Your task to perform on an android device: allow cookies in the chrome app Image 0: 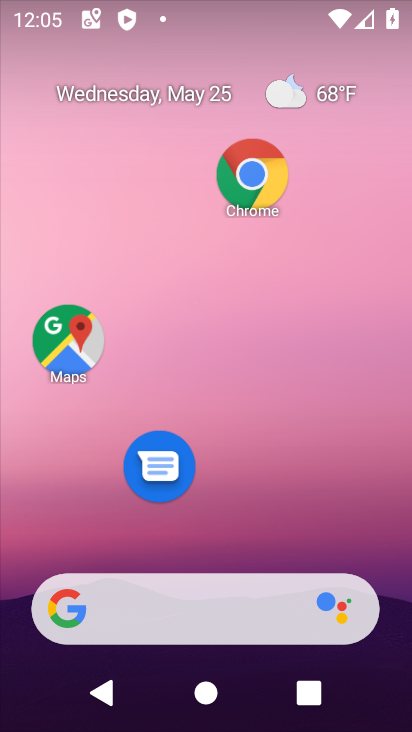
Step 0: click (345, 264)
Your task to perform on an android device: allow cookies in the chrome app Image 1: 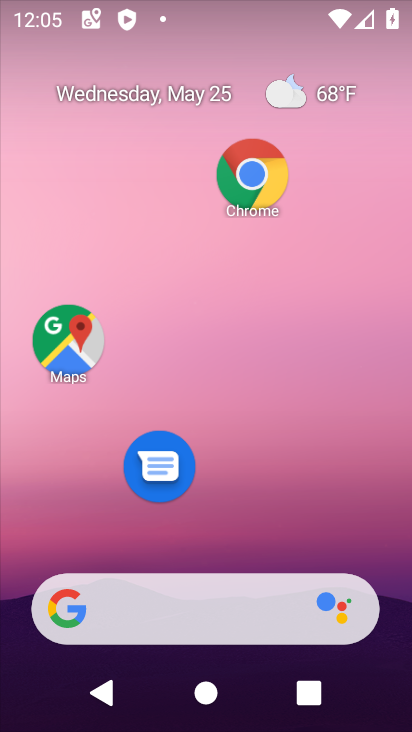
Step 1: click (269, 182)
Your task to perform on an android device: allow cookies in the chrome app Image 2: 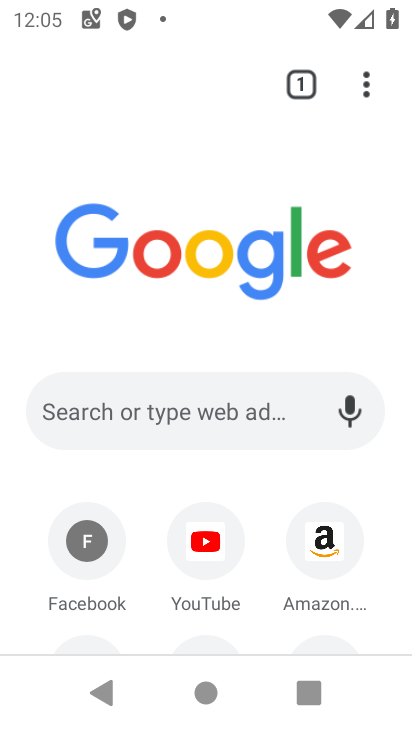
Step 2: click (374, 84)
Your task to perform on an android device: allow cookies in the chrome app Image 3: 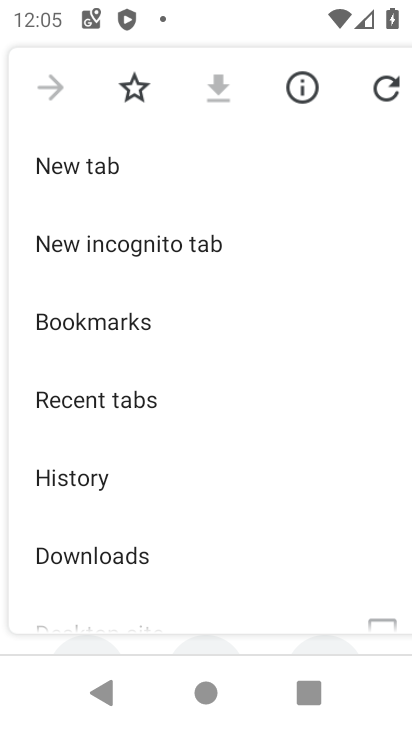
Step 3: drag from (208, 392) to (234, 129)
Your task to perform on an android device: allow cookies in the chrome app Image 4: 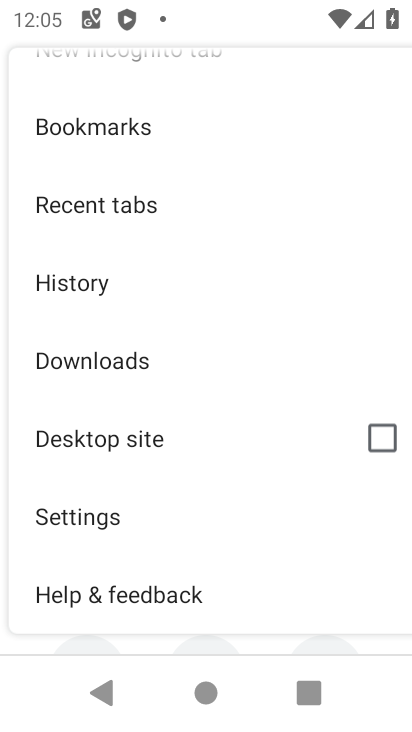
Step 4: click (62, 501)
Your task to perform on an android device: allow cookies in the chrome app Image 5: 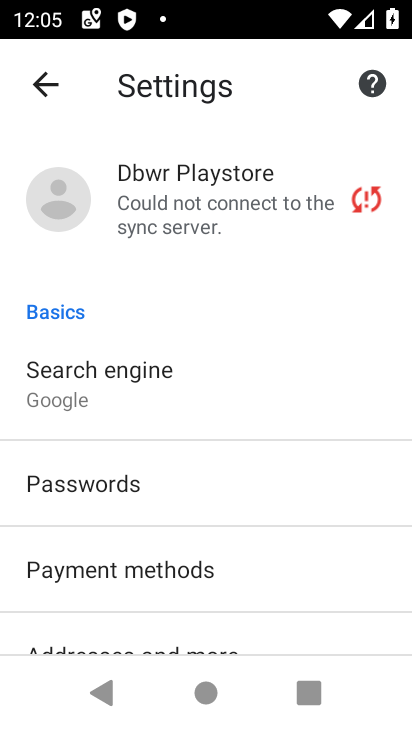
Step 5: drag from (123, 502) to (150, 141)
Your task to perform on an android device: allow cookies in the chrome app Image 6: 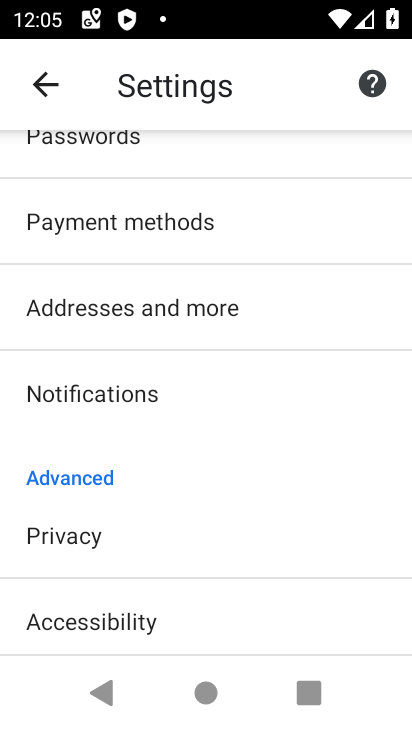
Step 6: drag from (116, 542) to (159, 278)
Your task to perform on an android device: allow cookies in the chrome app Image 7: 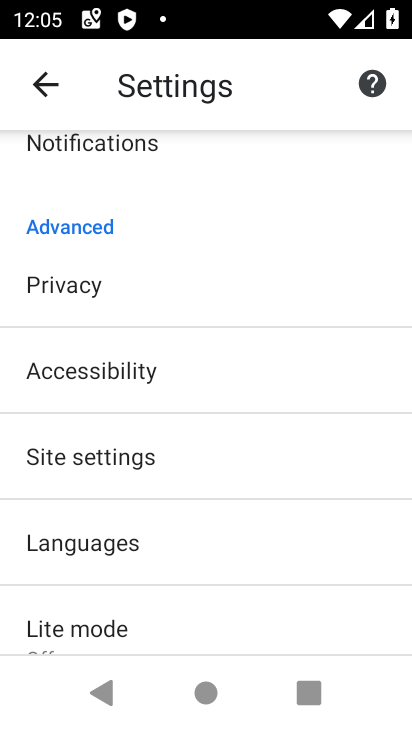
Step 7: click (156, 462)
Your task to perform on an android device: allow cookies in the chrome app Image 8: 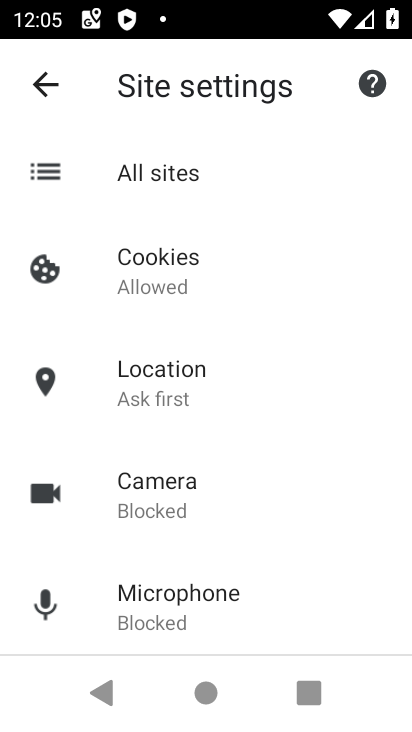
Step 8: click (190, 252)
Your task to perform on an android device: allow cookies in the chrome app Image 9: 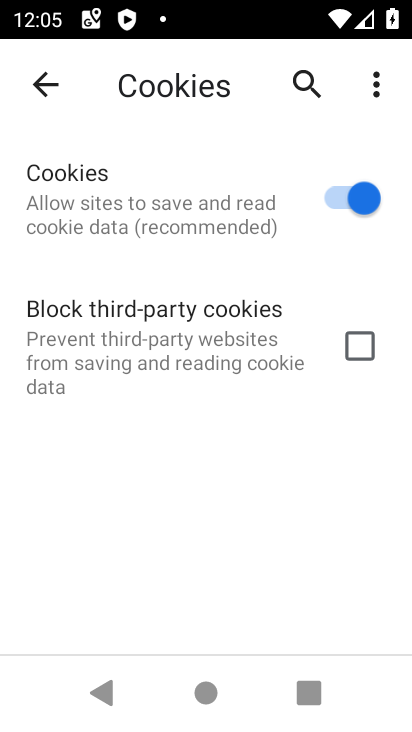
Step 9: task complete